Your task to perform on an android device: Open the phone app and click the voicemail tab. Image 0: 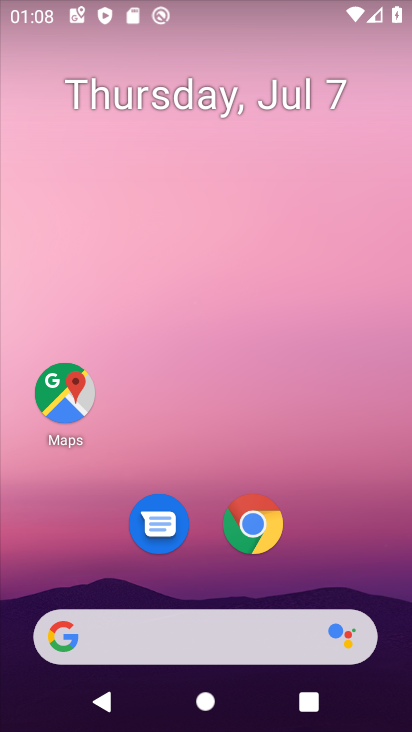
Step 0: drag from (212, 458) to (236, 23)
Your task to perform on an android device: Open the phone app and click the voicemail tab. Image 1: 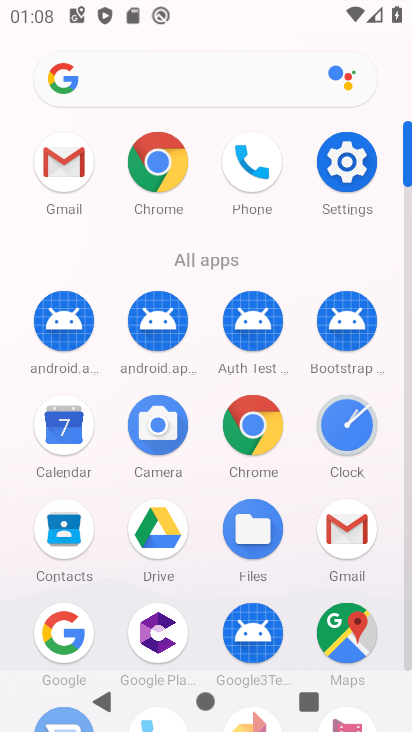
Step 1: click (247, 159)
Your task to perform on an android device: Open the phone app and click the voicemail tab. Image 2: 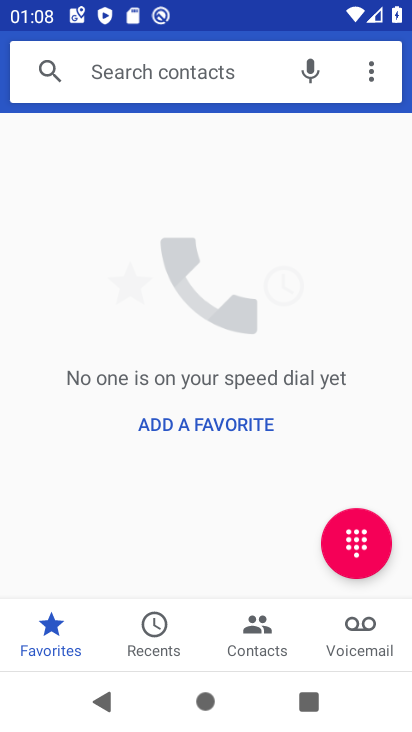
Step 2: click (347, 634)
Your task to perform on an android device: Open the phone app and click the voicemail tab. Image 3: 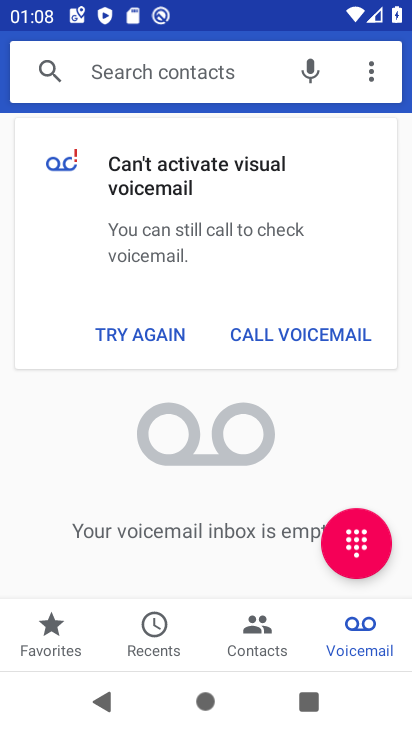
Step 3: task complete